Your task to perform on an android device: turn pop-ups off in chrome Image 0: 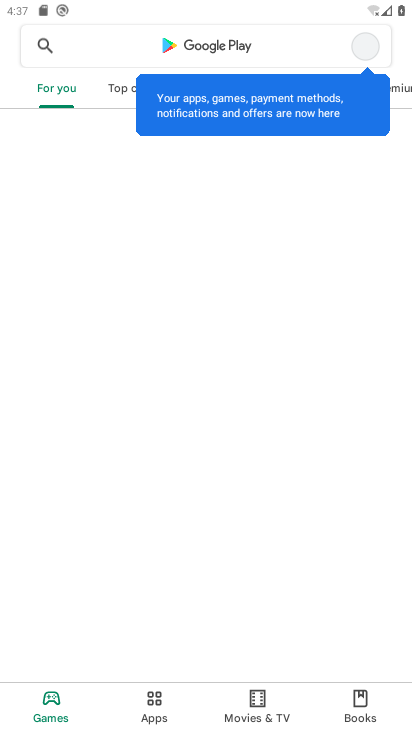
Step 0: press home button
Your task to perform on an android device: turn pop-ups off in chrome Image 1: 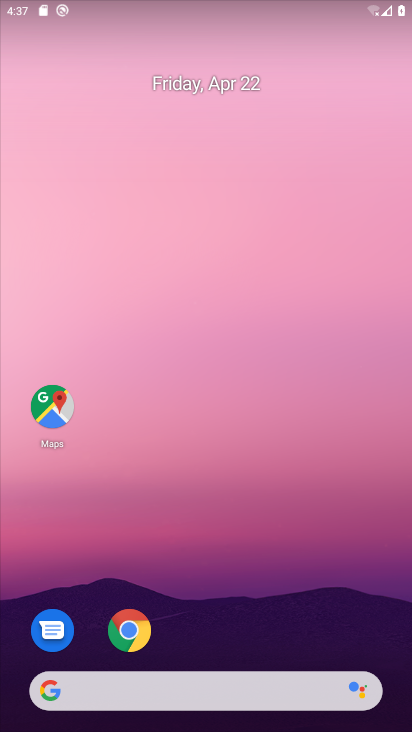
Step 1: click (127, 630)
Your task to perform on an android device: turn pop-ups off in chrome Image 2: 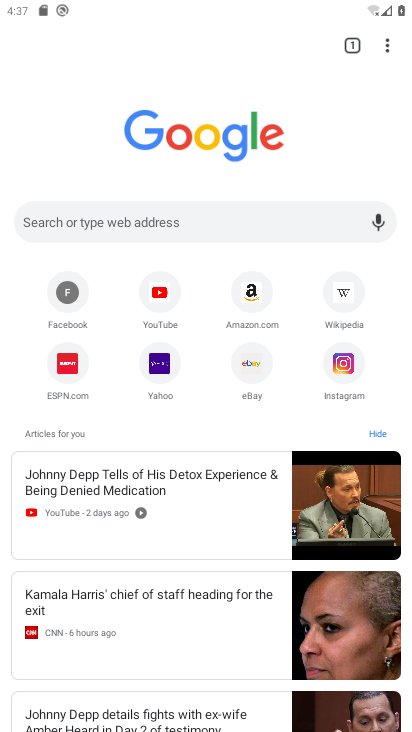
Step 2: click (391, 48)
Your task to perform on an android device: turn pop-ups off in chrome Image 3: 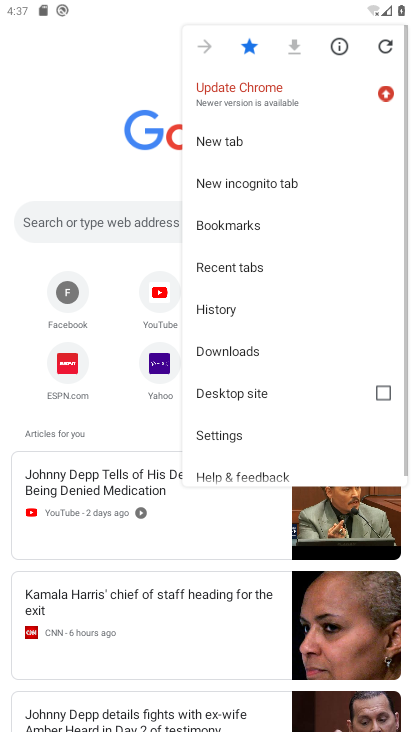
Step 3: click (232, 435)
Your task to perform on an android device: turn pop-ups off in chrome Image 4: 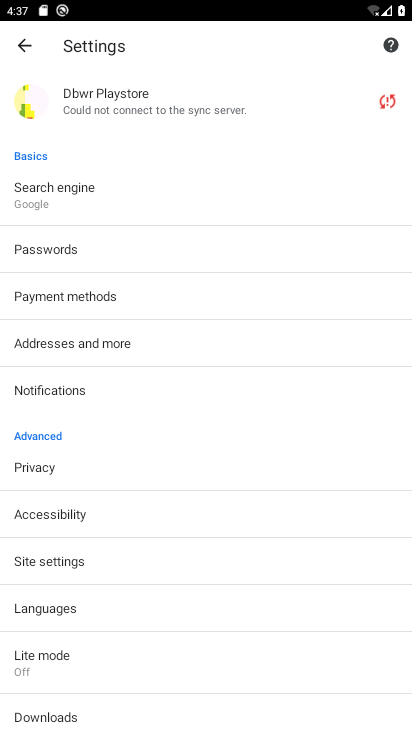
Step 4: click (52, 558)
Your task to perform on an android device: turn pop-ups off in chrome Image 5: 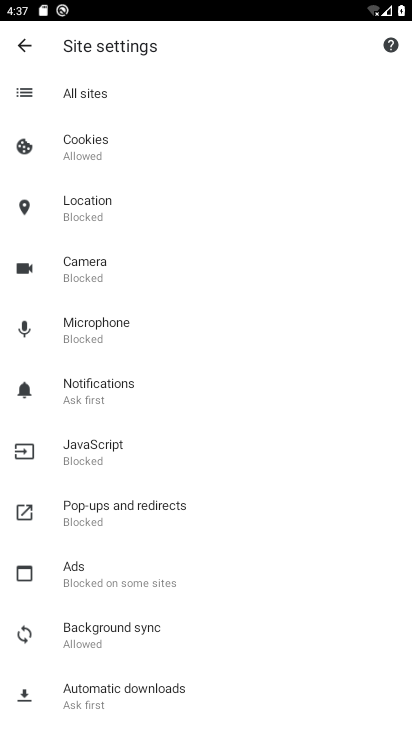
Step 5: click (120, 495)
Your task to perform on an android device: turn pop-ups off in chrome Image 6: 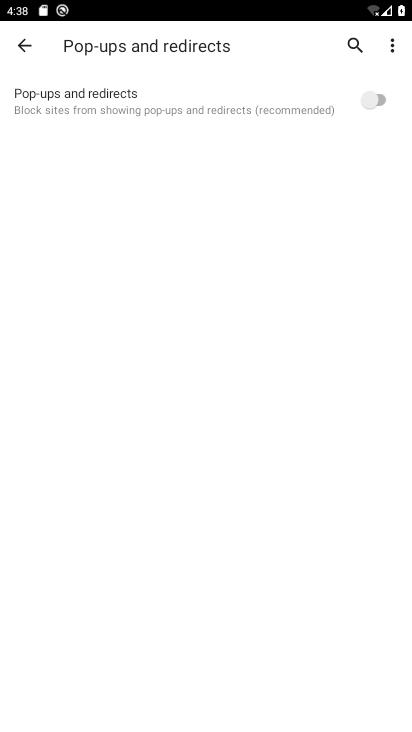
Step 6: task complete